Your task to perform on an android device: Empty the shopping cart on ebay. Add macbook pro 15 inch to the cart on ebay Image 0: 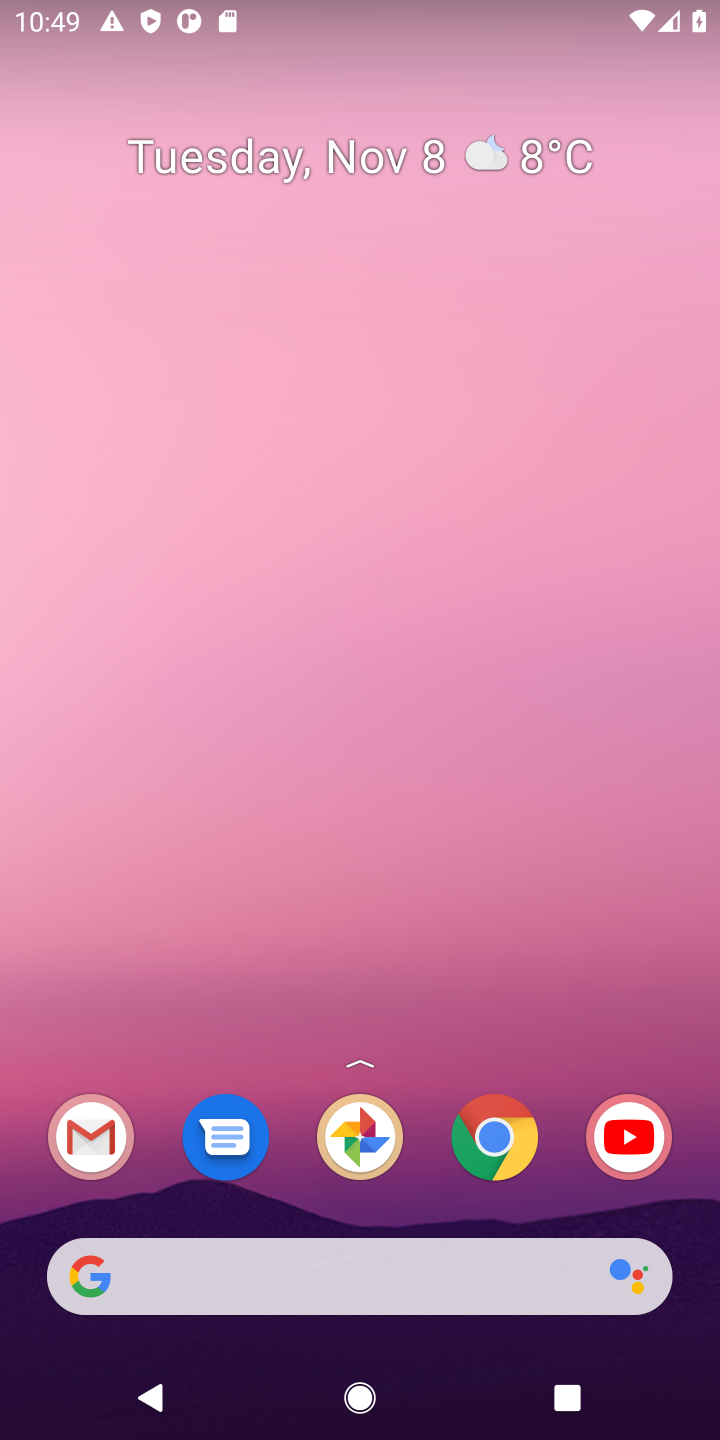
Step 0: click (647, 613)
Your task to perform on an android device: Empty the shopping cart on ebay. Add macbook pro 15 inch to the cart on ebay Image 1: 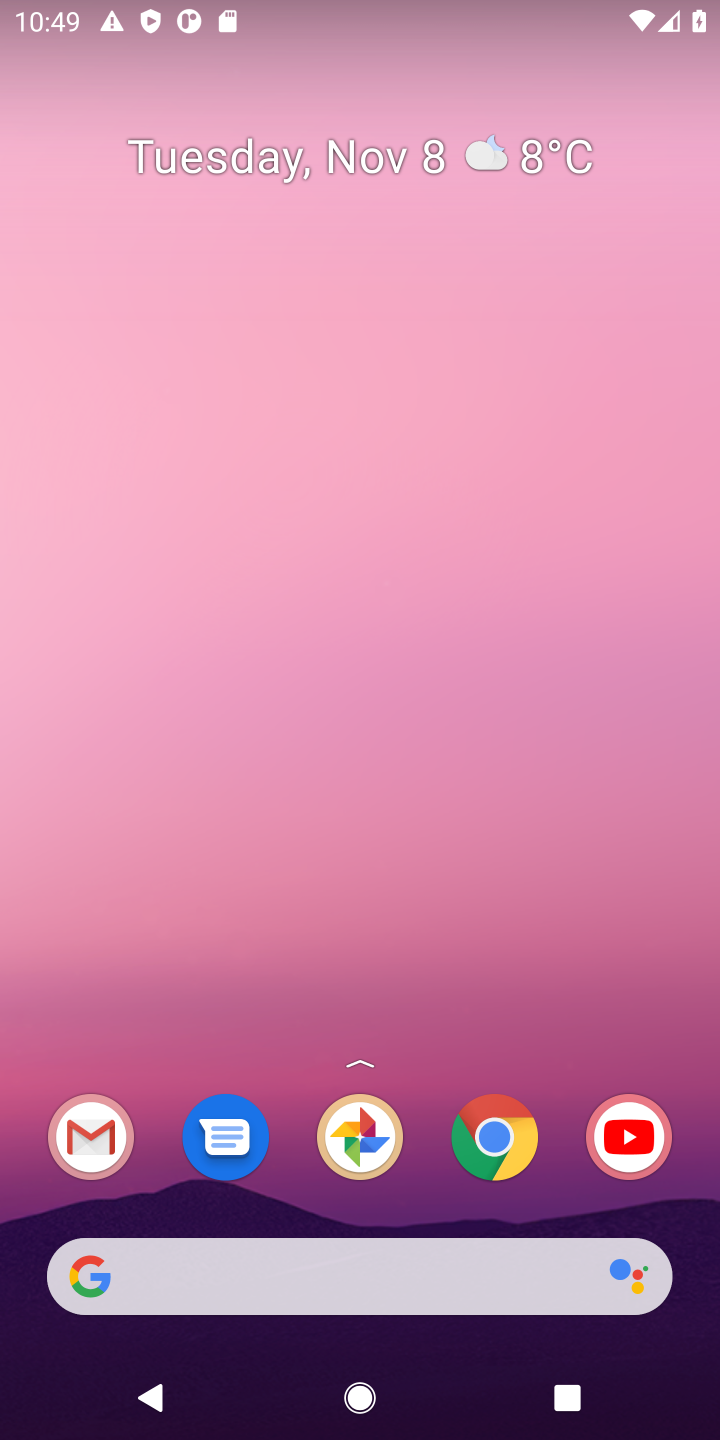
Step 1: click (474, 1173)
Your task to perform on an android device: Empty the shopping cart on ebay. Add macbook pro 15 inch to the cart on ebay Image 2: 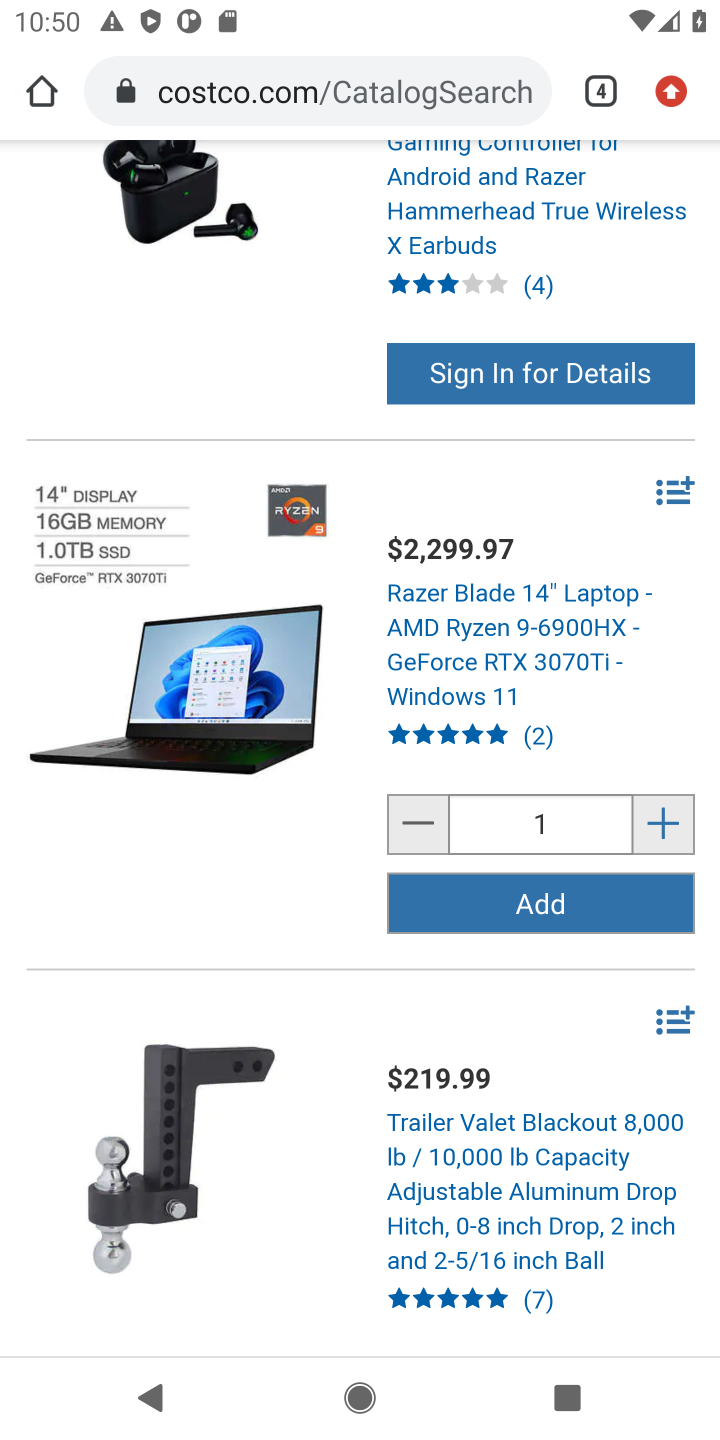
Step 2: click (599, 90)
Your task to perform on an android device: Empty the shopping cart on ebay. Add macbook pro 15 inch to the cart on ebay Image 3: 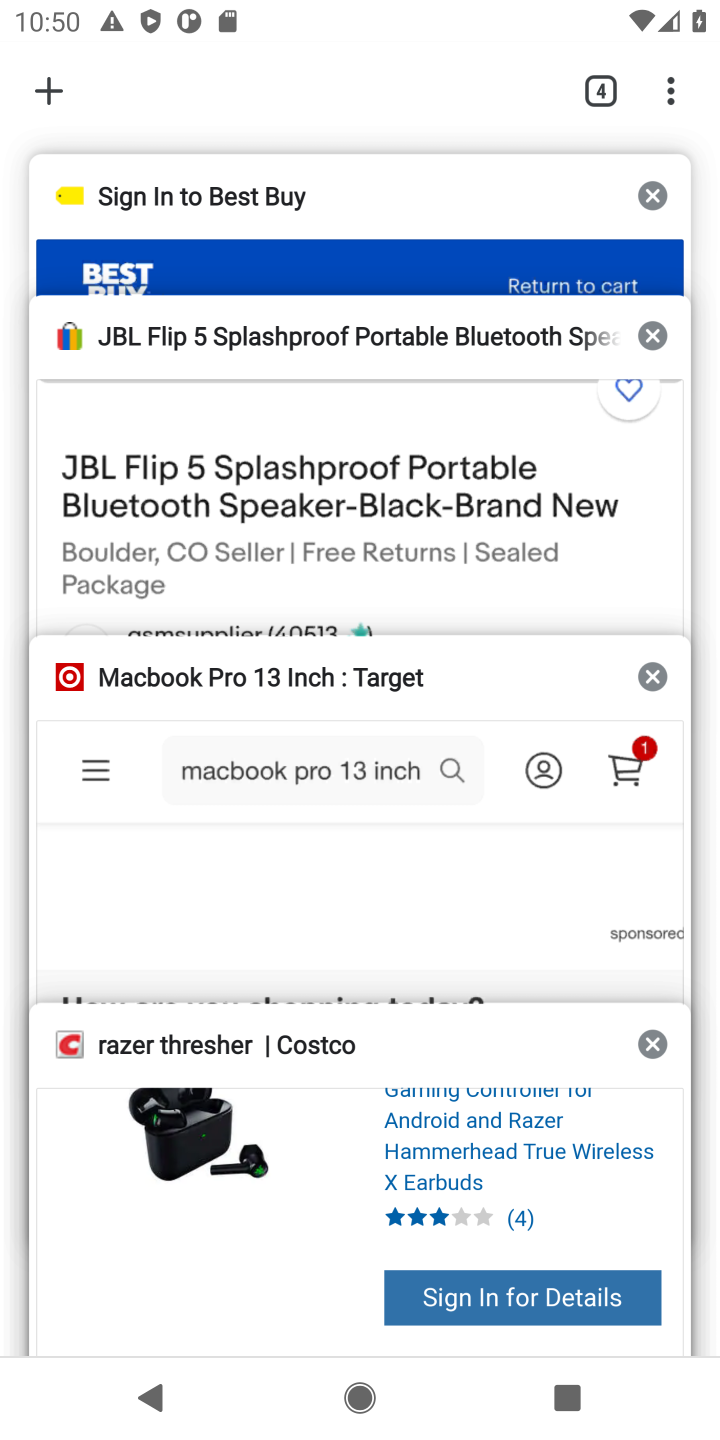
Step 3: click (109, 378)
Your task to perform on an android device: Empty the shopping cart on ebay. Add macbook pro 15 inch to the cart on ebay Image 4: 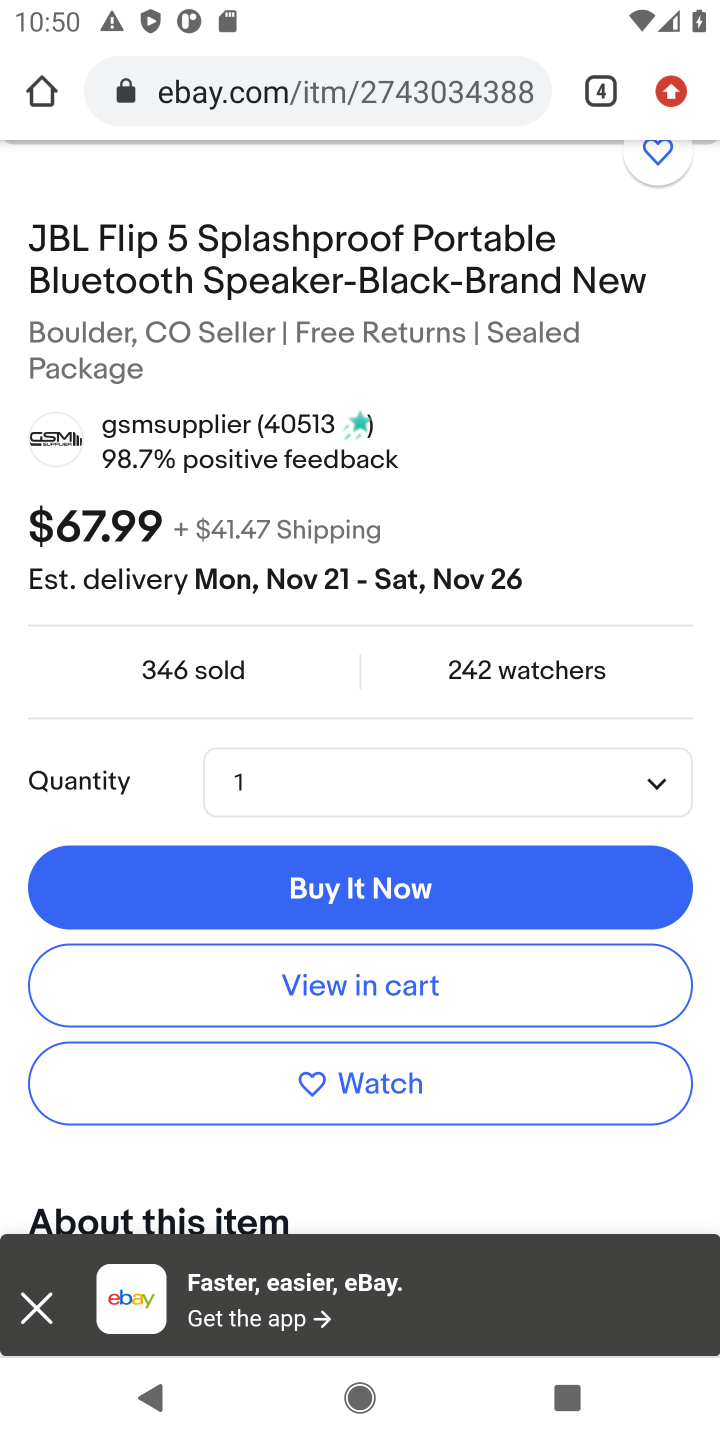
Step 4: drag from (558, 273) to (411, 953)
Your task to perform on an android device: Empty the shopping cart on ebay. Add macbook pro 15 inch to the cart on ebay Image 5: 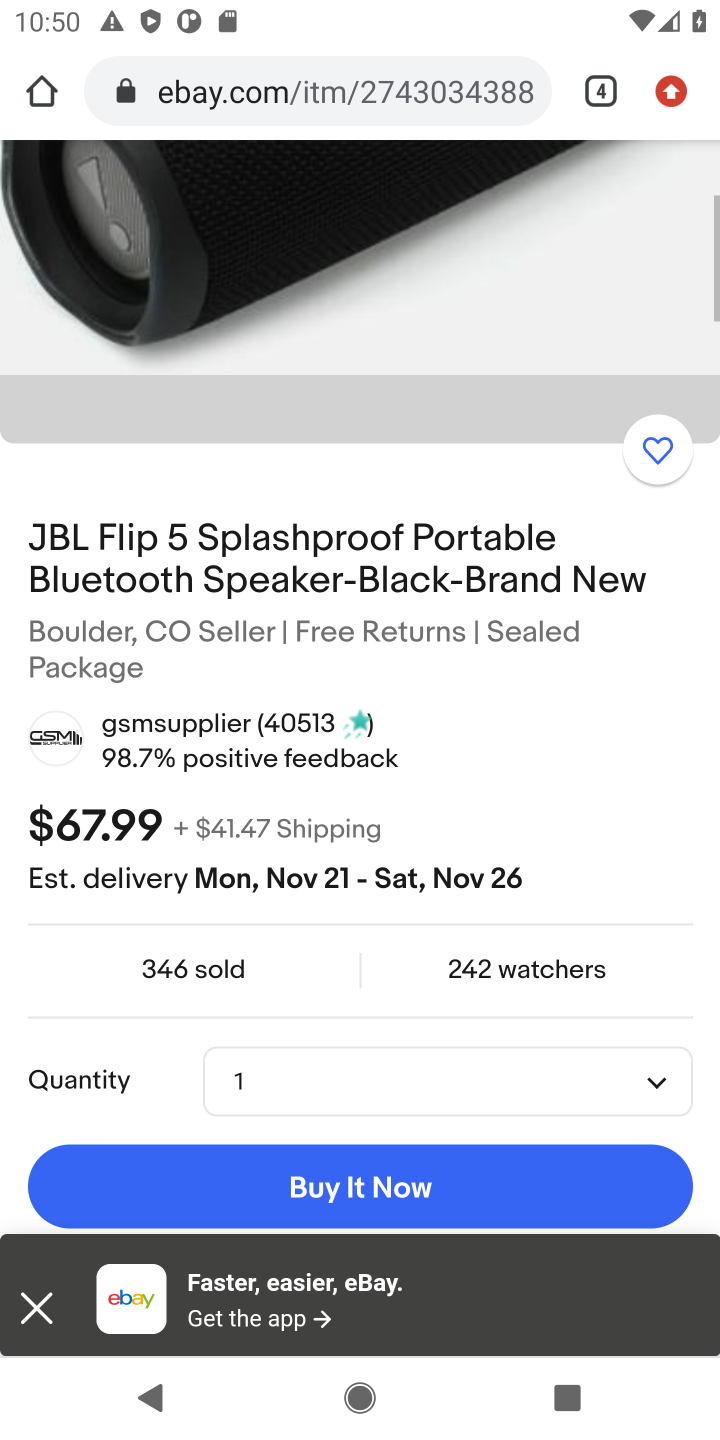
Step 5: drag from (404, 291) to (391, 863)
Your task to perform on an android device: Empty the shopping cart on ebay. Add macbook pro 15 inch to the cart on ebay Image 6: 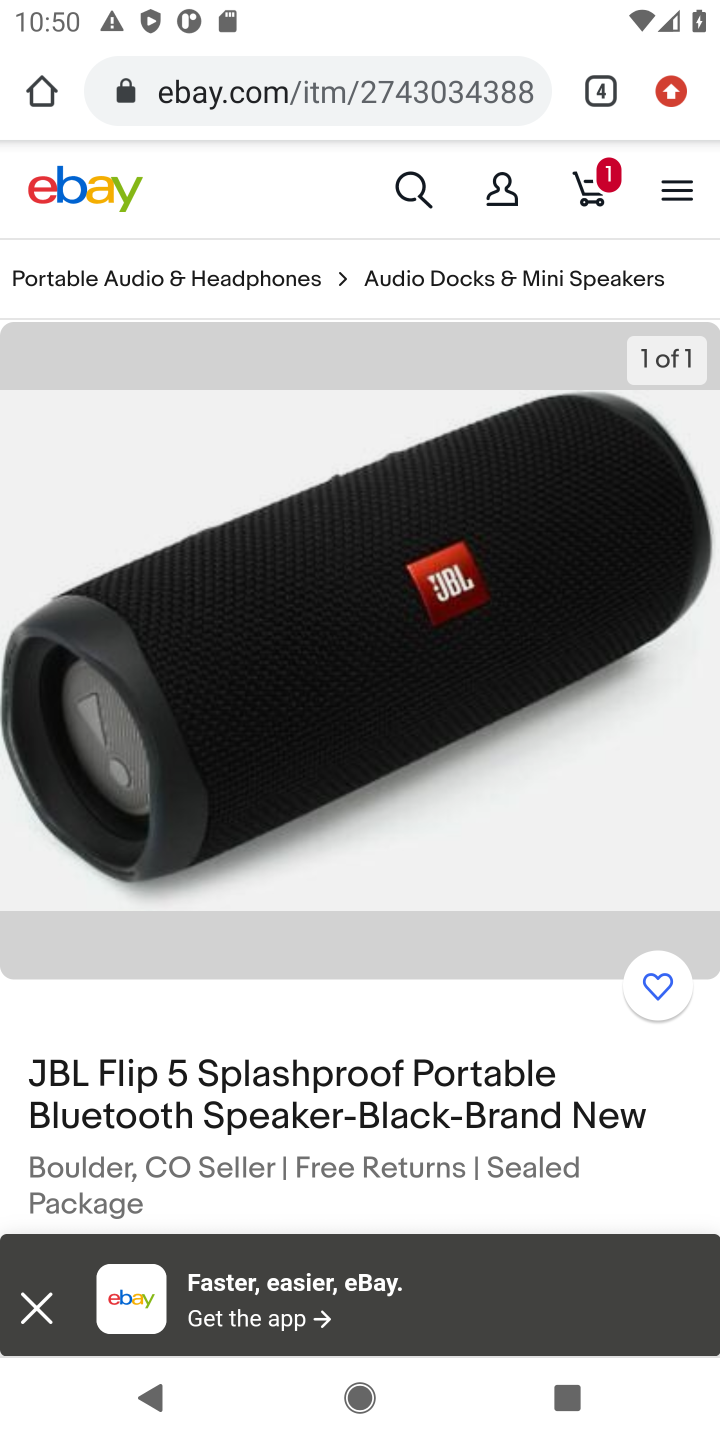
Step 6: click (598, 163)
Your task to perform on an android device: Empty the shopping cart on ebay. Add macbook pro 15 inch to the cart on ebay Image 7: 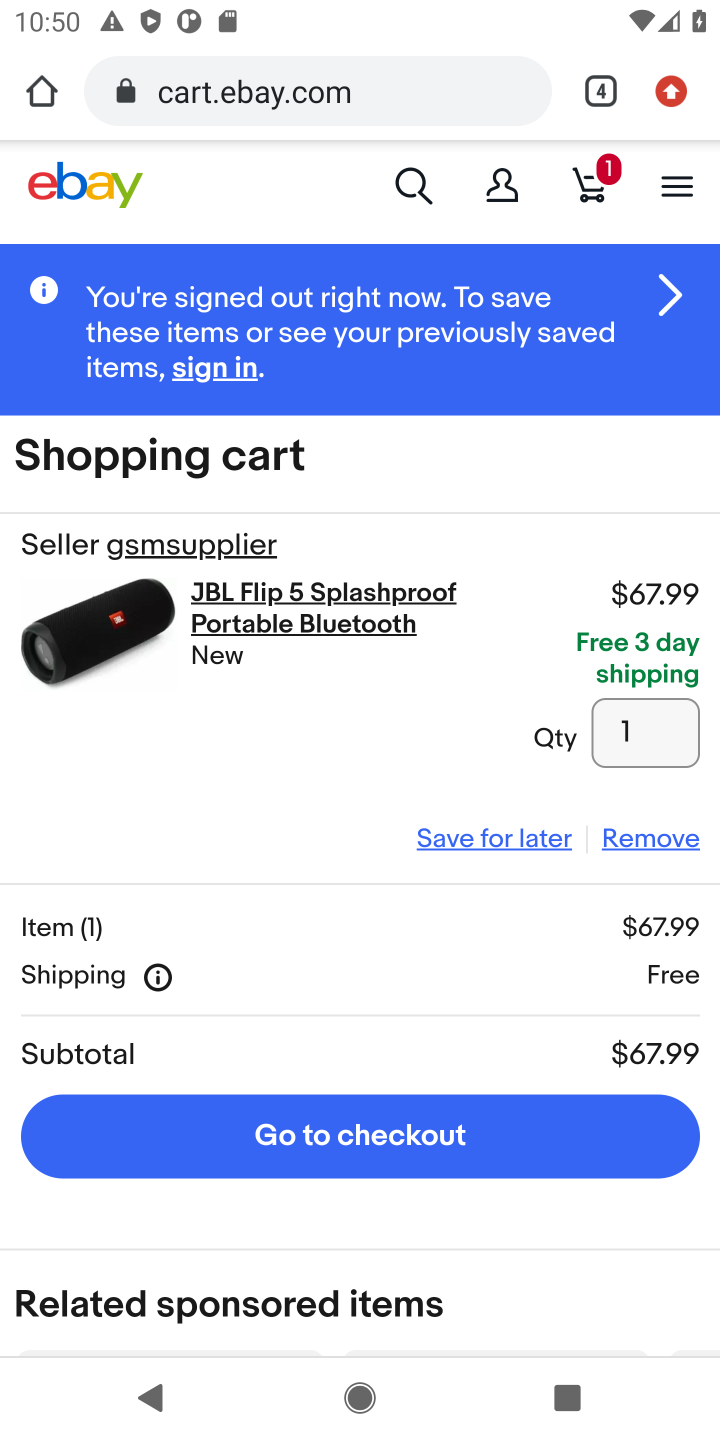
Step 7: click (671, 835)
Your task to perform on an android device: Empty the shopping cart on ebay. Add macbook pro 15 inch to the cart on ebay Image 8: 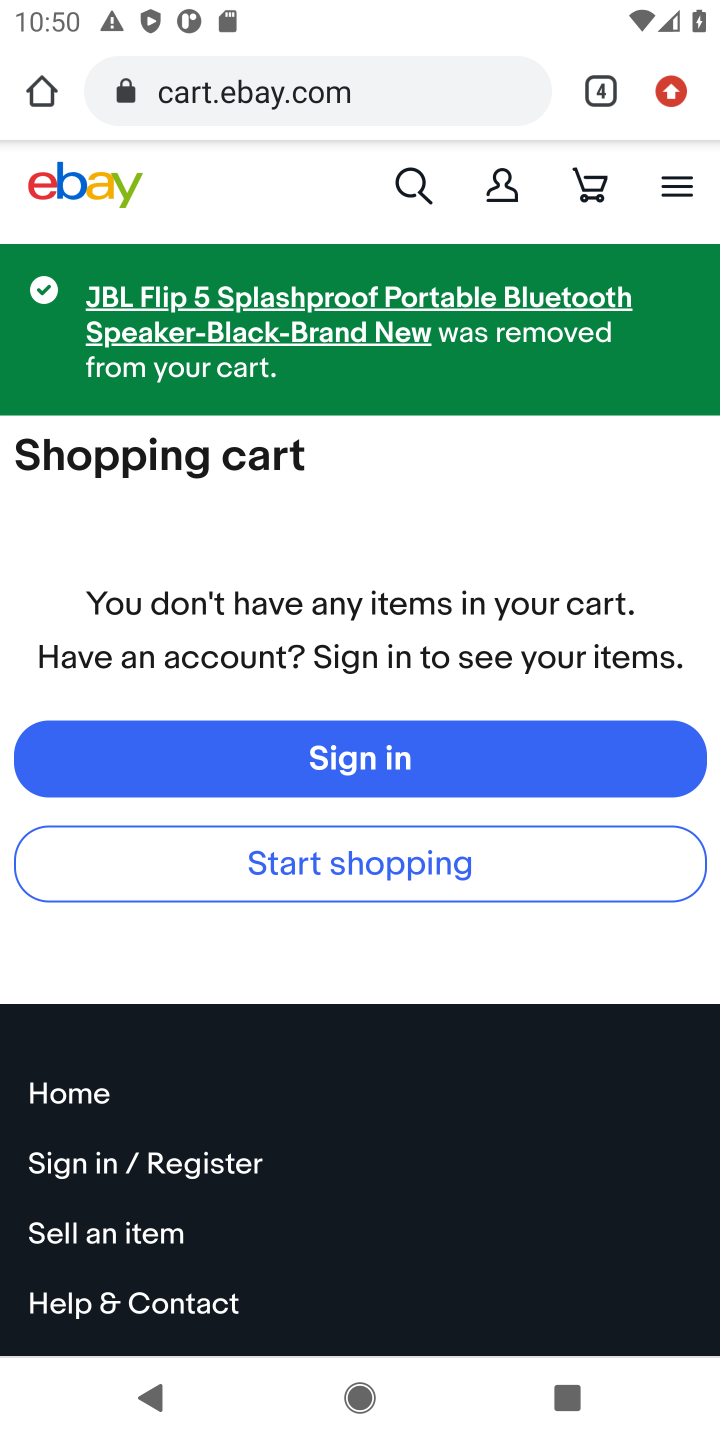
Step 8: click (412, 182)
Your task to perform on an android device: Empty the shopping cart on ebay. Add macbook pro 15 inch to the cart on ebay Image 9: 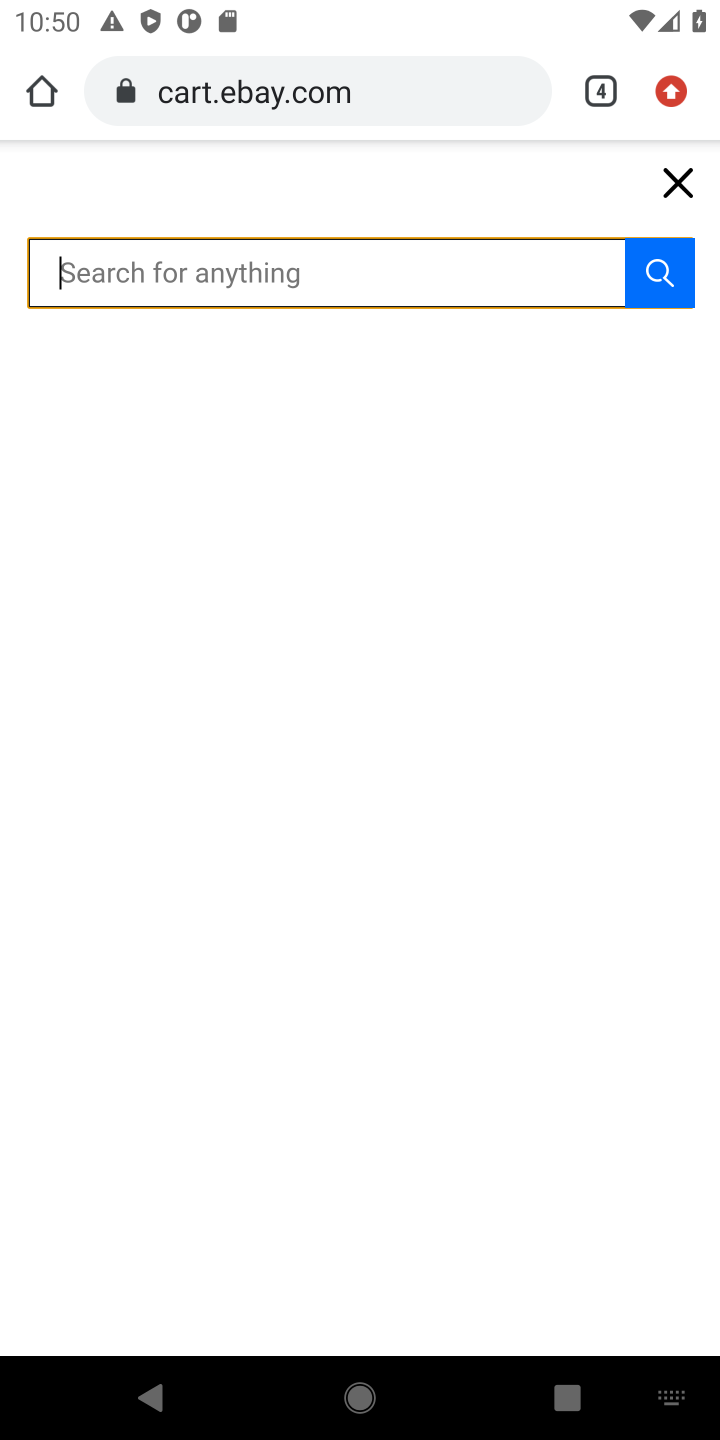
Step 9: type "macbook pro 15 inch"
Your task to perform on an android device: Empty the shopping cart on ebay. Add macbook pro 15 inch to the cart on ebay Image 10: 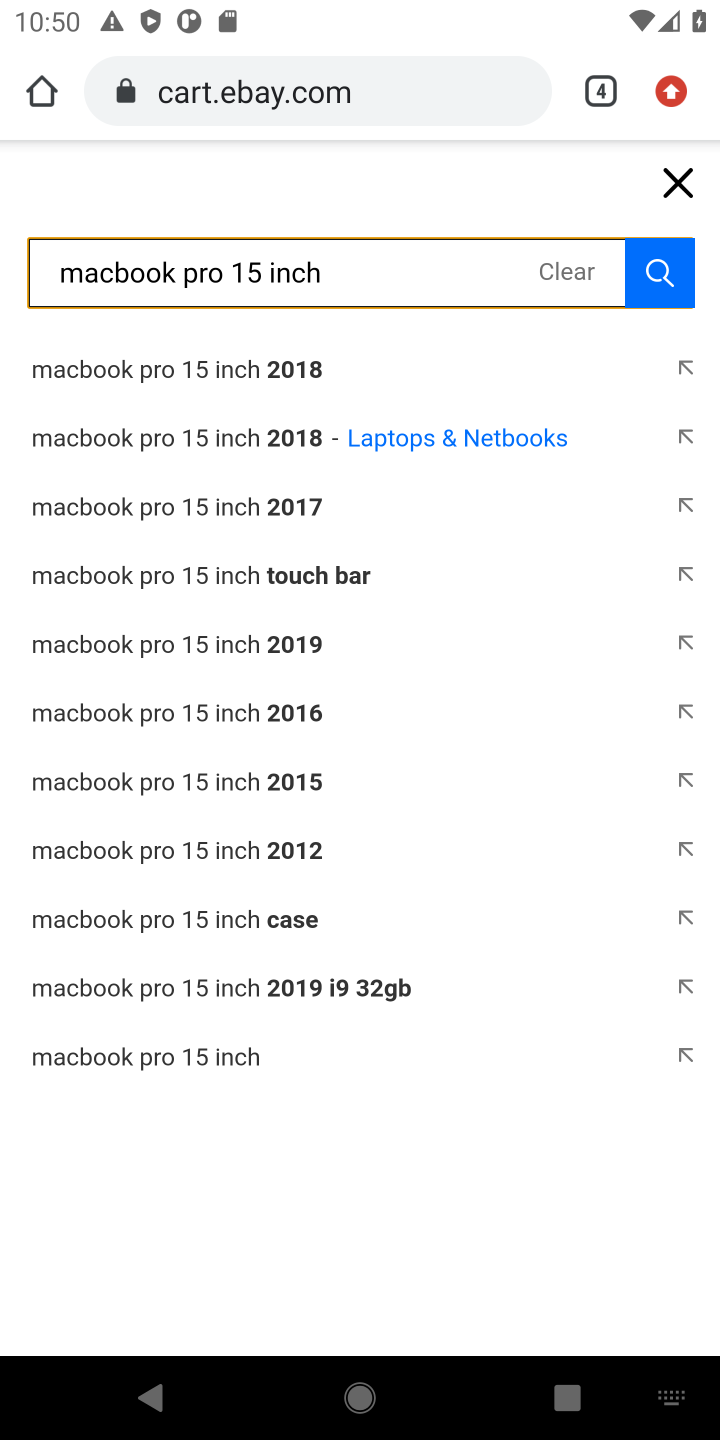
Step 10: click (665, 293)
Your task to perform on an android device: Empty the shopping cart on ebay. Add macbook pro 15 inch to the cart on ebay Image 11: 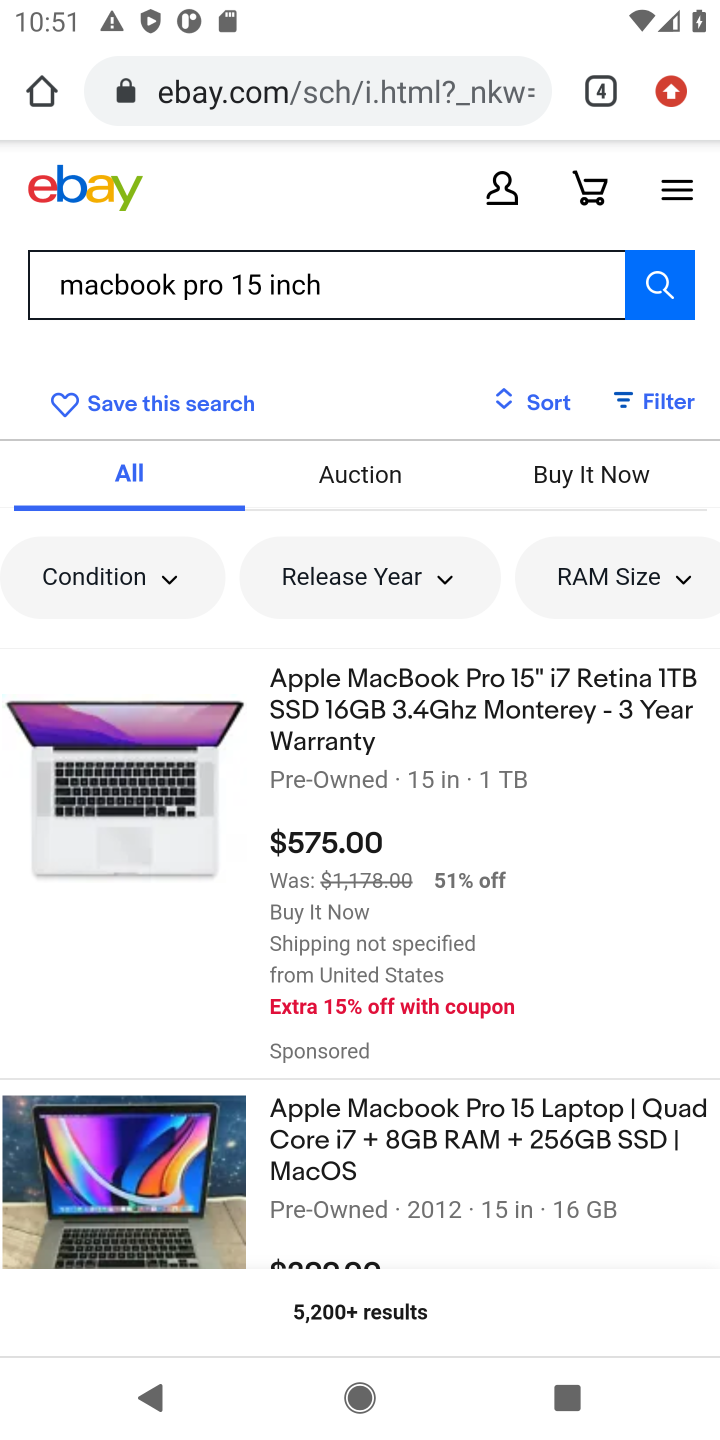
Step 11: click (396, 679)
Your task to perform on an android device: Empty the shopping cart on ebay. Add macbook pro 15 inch to the cart on ebay Image 12: 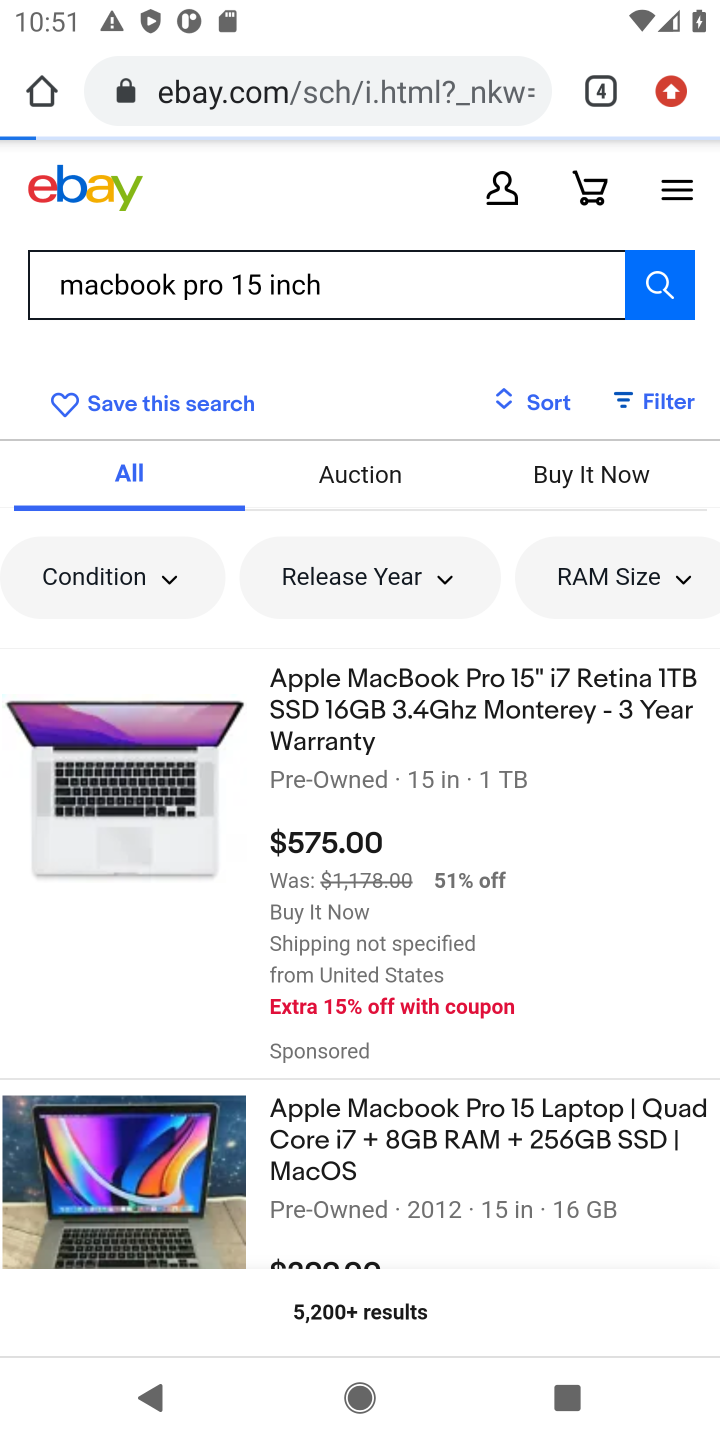
Step 12: click (396, 679)
Your task to perform on an android device: Empty the shopping cart on ebay. Add macbook pro 15 inch to the cart on ebay Image 13: 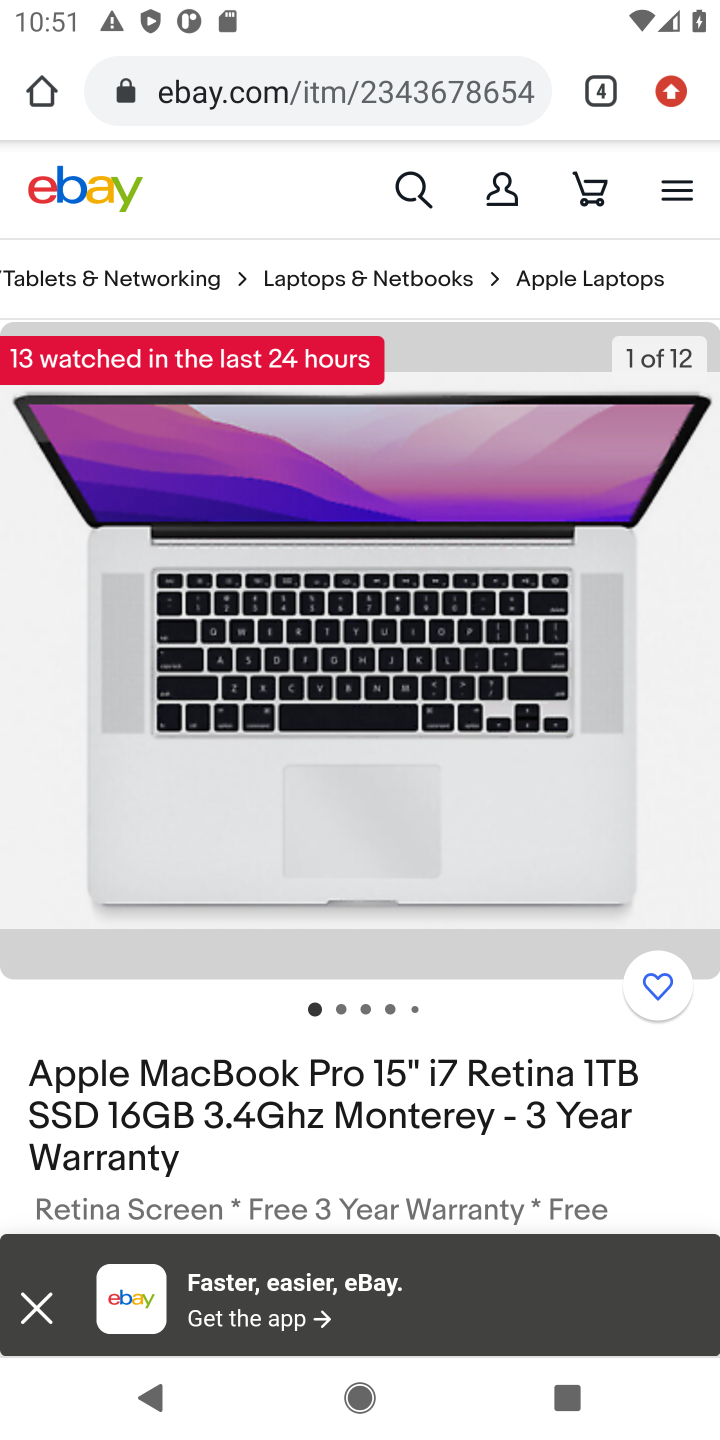
Step 13: drag from (454, 943) to (616, 336)
Your task to perform on an android device: Empty the shopping cart on ebay. Add macbook pro 15 inch to the cart on ebay Image 14: 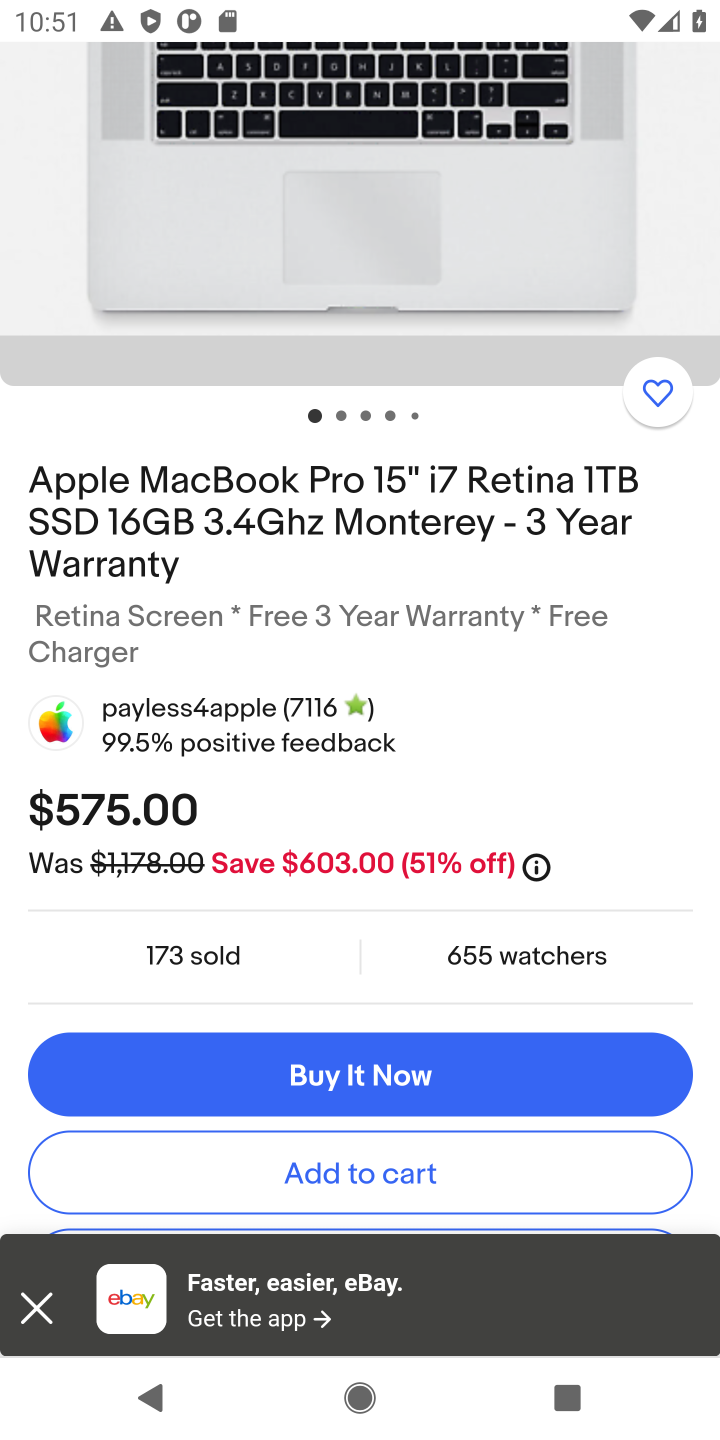
Step 14: click (404, 1186)
Your task to perform on an android device: Empty the shopping cart on ebay. Add macbook pro 15 inch to the cart on ebay Image 15: 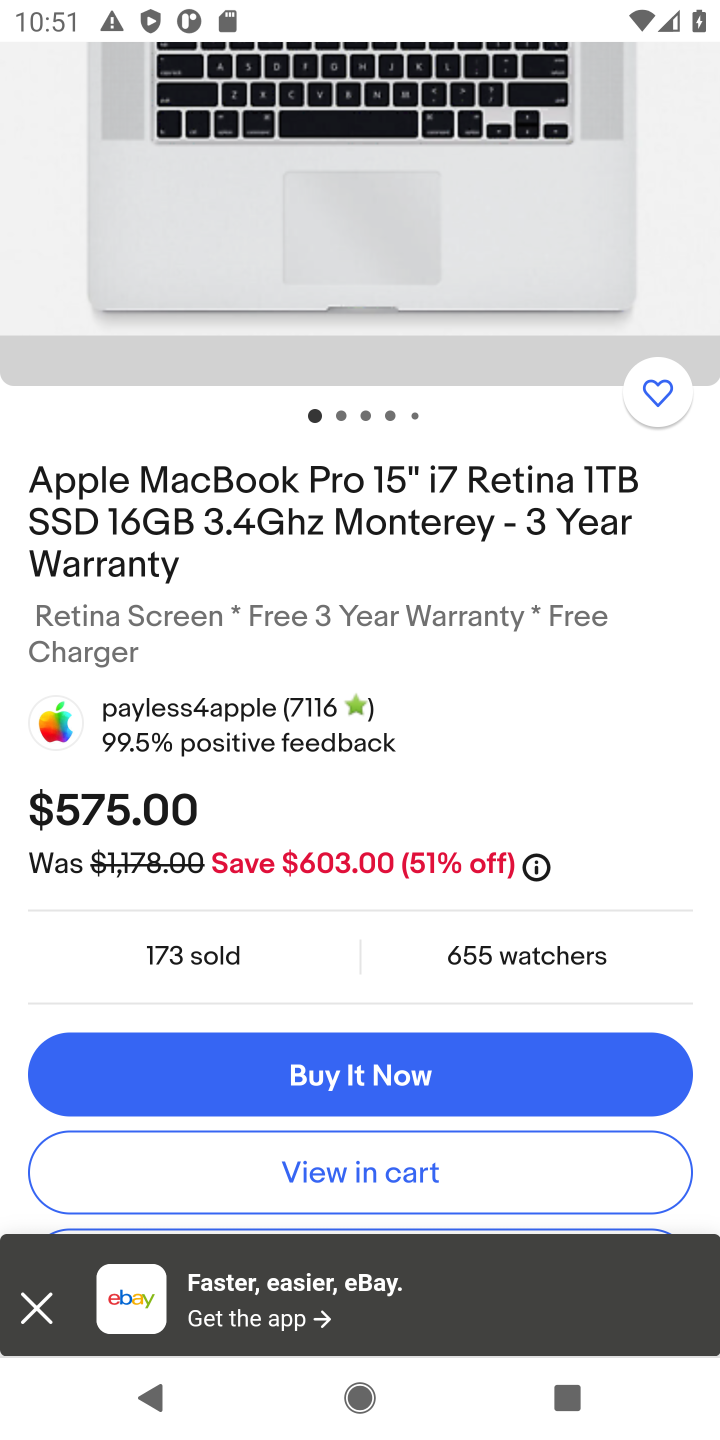
Step 15: task complete